Your task to perform on an android device: Go to Android settings Image 0: 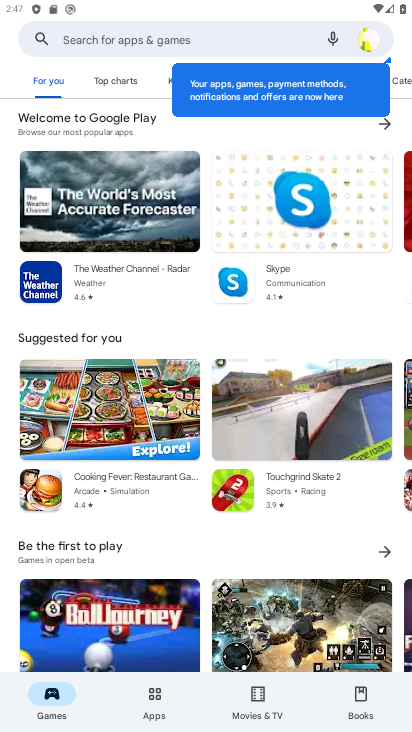
Step 0: press home button
Your task to perform on an android device: Go to Android settings Image 1: 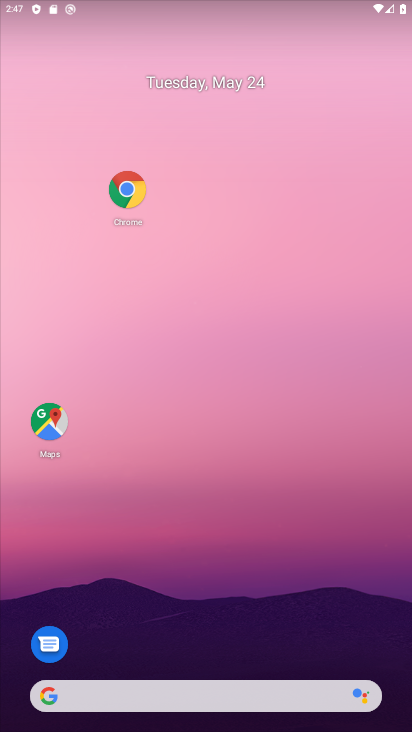
Step 1: drag from (206, 487) to (256, 70)
Your task to perform on an android device: Go to Android settings Image 2: 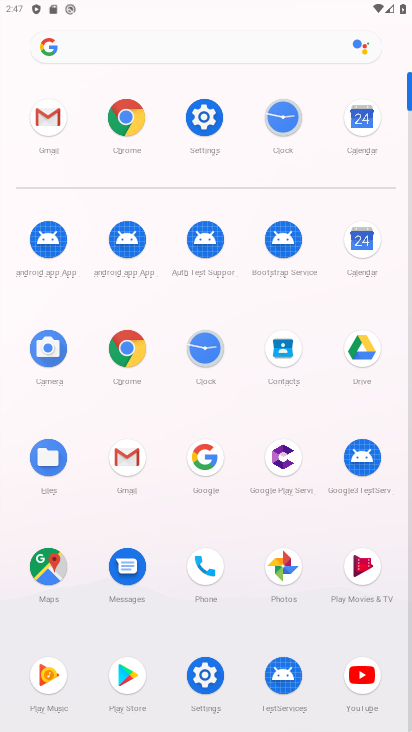
Step 2: click (208, 113)
Your task to perform on an android device: Go to Android settings Image 3: 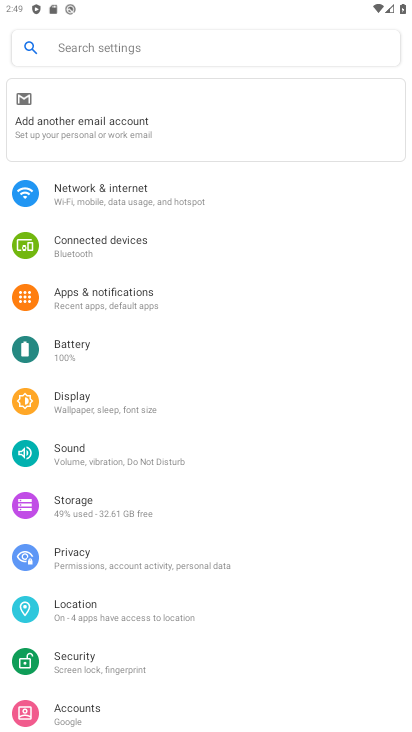
Step 3: task complete